Your task to perform on an android device: Open calendar and show me the fourth week of next month Image 0: 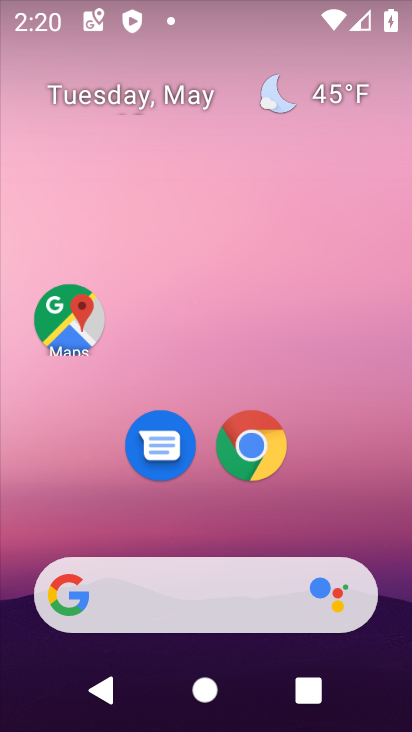
Step 0: drag from (201, 485) to (310, 0)
Your task to perform on an android device: Open calendar and show me the fourth week of next month Image 1: 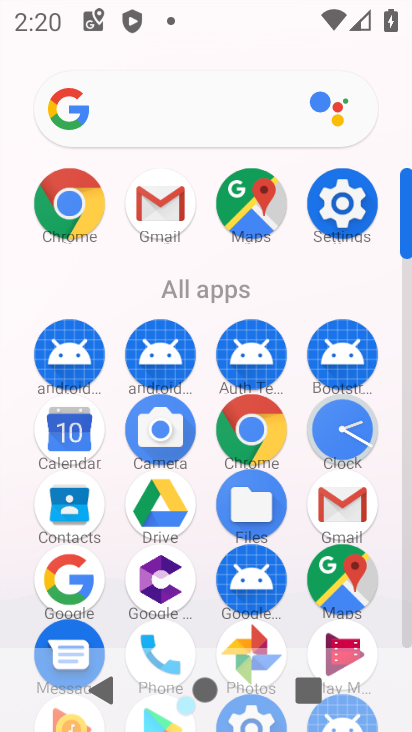
Step 1: click (62, 423)
Your task to perform on an android device: Open calendar and show me the fourth week of next month Image 2: 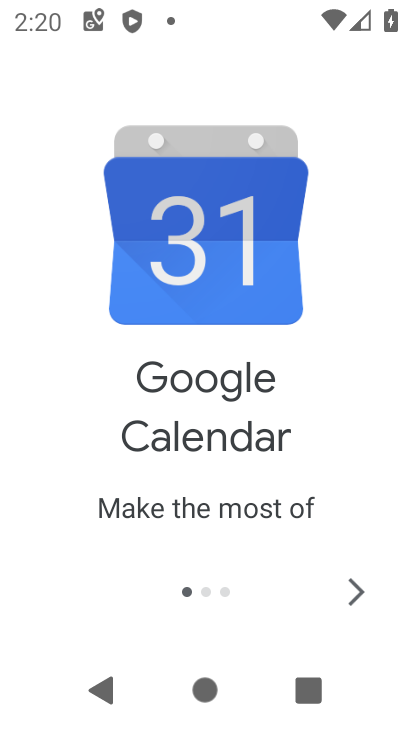
Step 2: click (363, 584)
Your task to perform on an android device: Open calendar and show me the fourth week of next month Image 3: 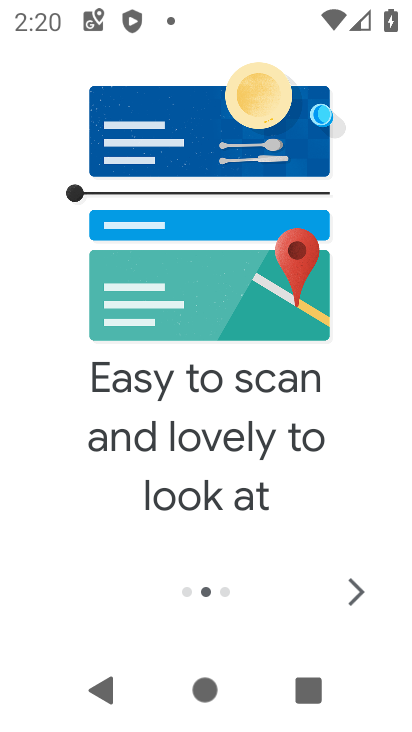
Step 3: click (361, 582)
Your task to perform on an android device: Open calendar and show me the fourth week of next month Image 4: 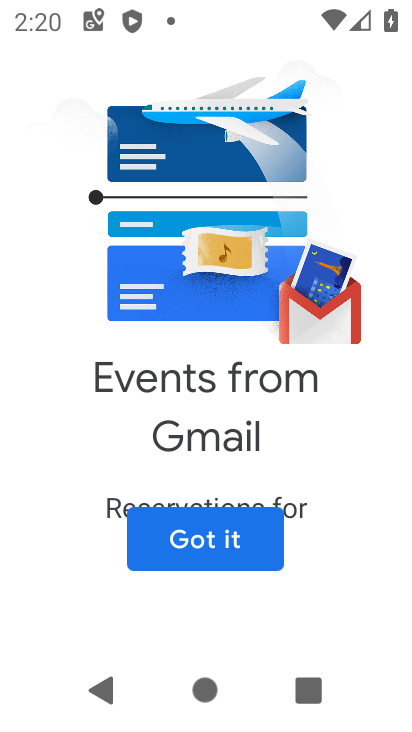
Step 4: click (182, 542)
Your task to perform on an android device: Open calendar and show me the fourth week of next month Image 5: 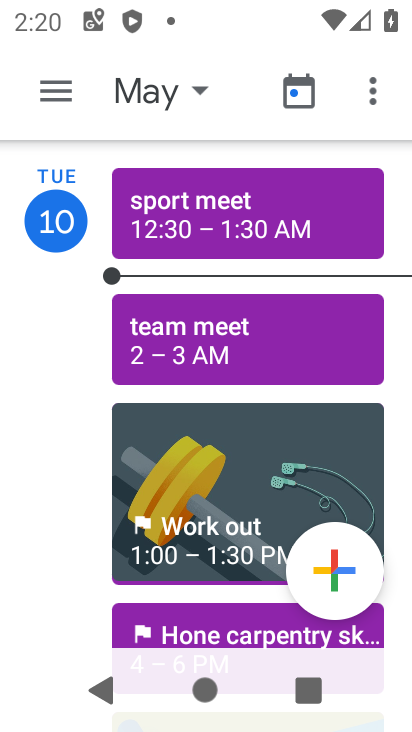
Step 5: click (184, 89)
Your task to perform on an android device: Open calendar and show me the fourth week of next month Image 6: 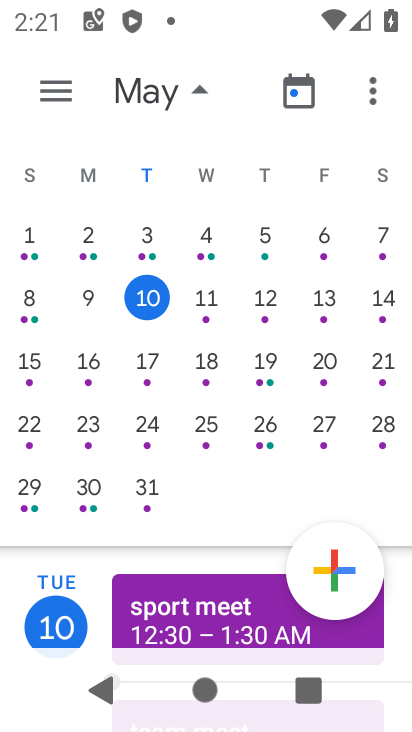
Step 6: drag from (357, 347) to (31, 282)
Your task to perform on an android device: Open calendar and show me the fourth week of next month Image 7: 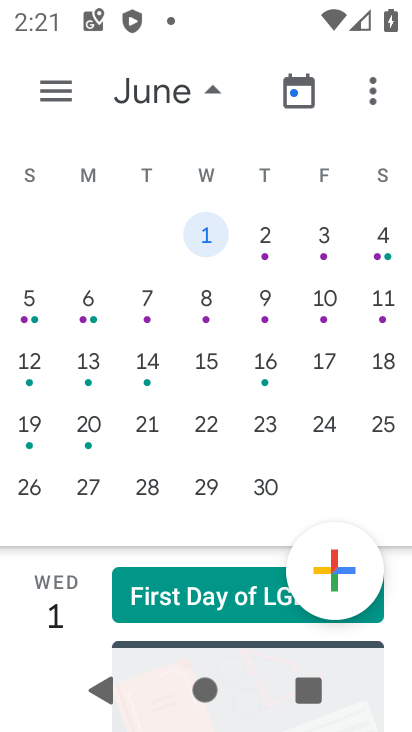
Step 7: click (86, 422)
Your task to perform on an android device: Open calendar and show me the fourth week of next month Image 8: 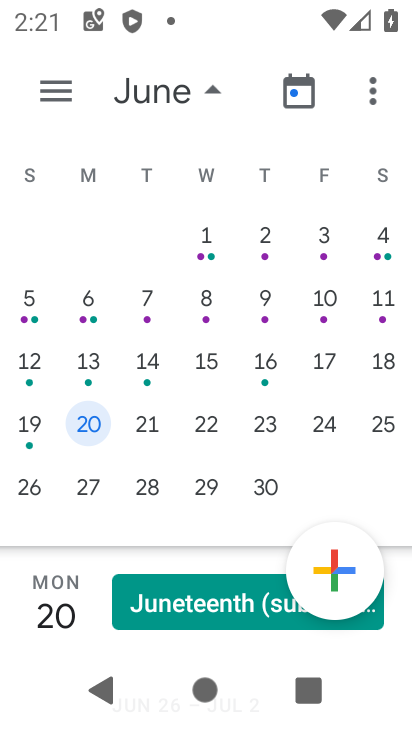
Step 8: task complete